Your task to perform on an android device: Search for "bose soundlink mini" on newegg.com, select the first entry, add it to the cart, then select checkout. Image 0: 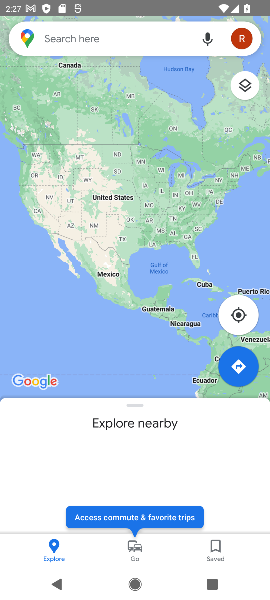
Step 0: press home button
Your task to perform on an android device: Search for "bose soundlink mini" on newegg.com, select the first entry, add it to the cart, then select checkout. Image 1: 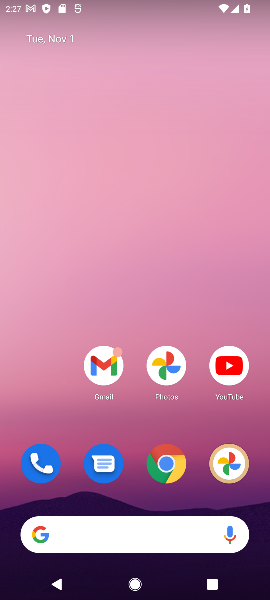
Step 1: drag from (129, 419) to (152, 98)
Your task to perform on an android device: Search for "bose soundlink mini" on newegg.com, select the first entry, add it to the cart, then select checkout. Image 2: 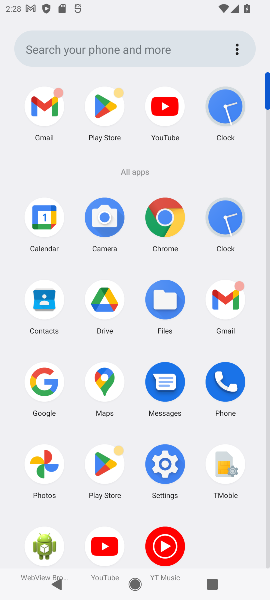
Step 2: click (169, 222)
Your task to perform on an android device: Search for "bose soundlink mini" on newegg.com, select the first entry, add it to the cart, then select checkout. Image 3: 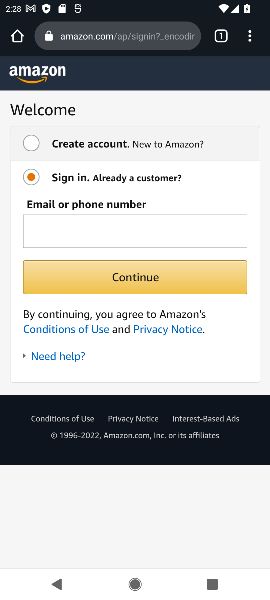
Step 3: click (130, 43)
Your task to perform on an android device: Search for "bose soundlink mini" on newegg.com, select the first entry, add it to the cart, then select checkout. Image 4: 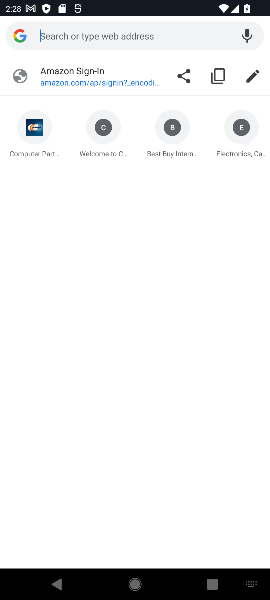
Step 4: type "newegg.com"
Your task to perform on an android device: Search for "bose soundlink mini" on newegg.com, select the first entry, add it to the cart, then select checkout. Image 5: 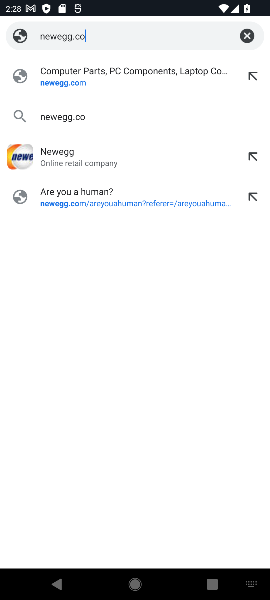
Step 5: press enter
Your task to perform on an android device: Search for "bose soundlink mini" on newegg.com, select the first entry, add it to the cart, then select checkout. Image 6: 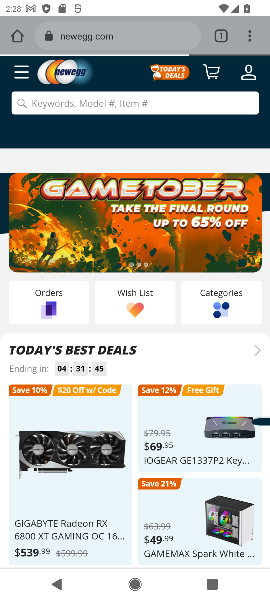
Step 6: click (147, 107)
Your task to perform on an android device: Search for "bose soundlink mini" on newegg.com, select the first entry, add it to the cart, then select checkout. Image 7: 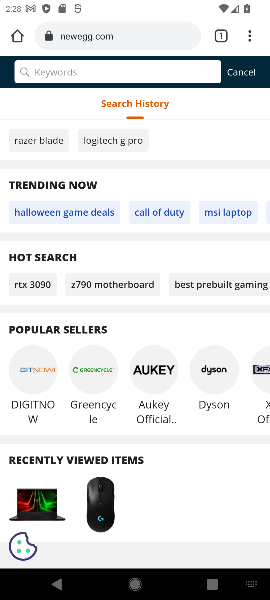
Step 7: type "bose soundlink mini"
Your task to perform on an android device: Search for "bose soundlink mini" on newegg.com, select the first entry, add it to the cart, then select checkout. Image 8: 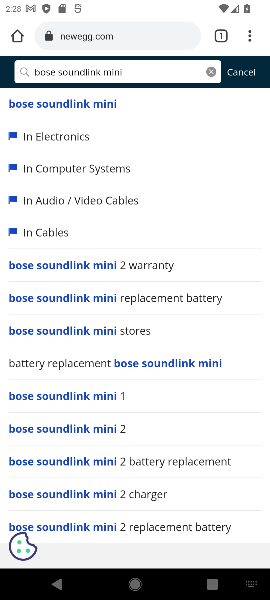
Step 8: press enter
Your task to perform on an android device: Search for "bose soundlink mini" on newegg.com, select the first entry, add it to the cart, then select checkout. Image 9: 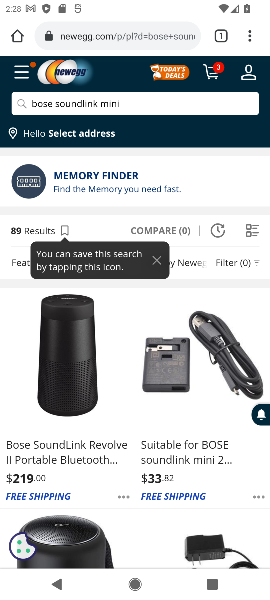
Step 9: click (155, 263)
Your task to perform on an android device: Search for "bose soundlink mini" on newegg.com, select the first entry, add it to the cart, then select checkout. Image 10: 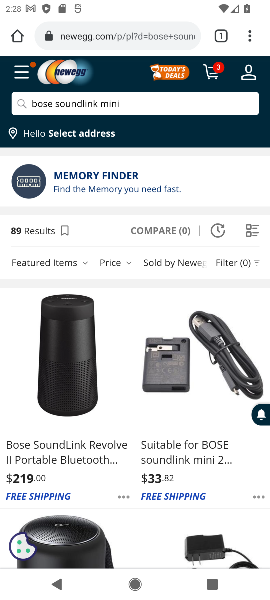
Step 10: task complete